Your task to perform on an android device: Empty the shopping cart on bestbuy.com. Image 0: 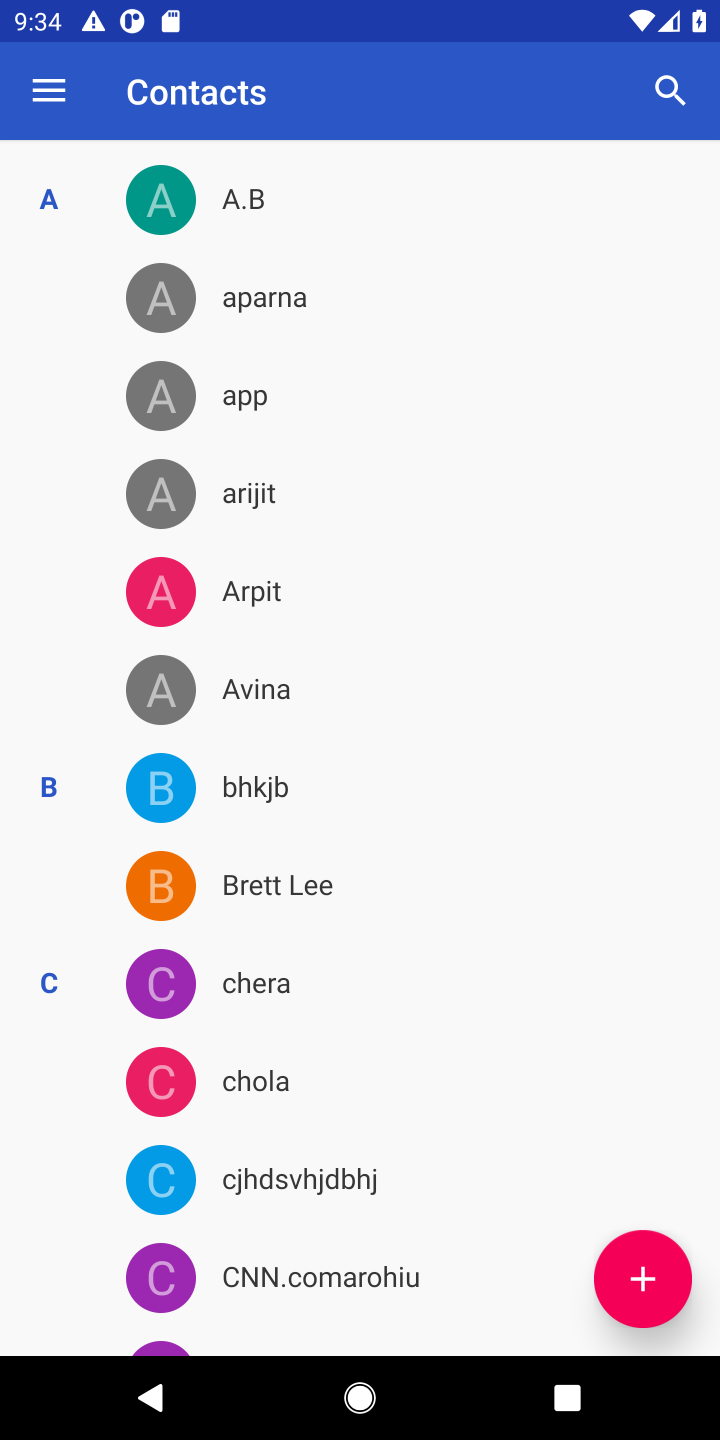
Step 0: press home button
Your task to perform on an android device: Empty the shopping cart on bestbuy.com. Image 1: 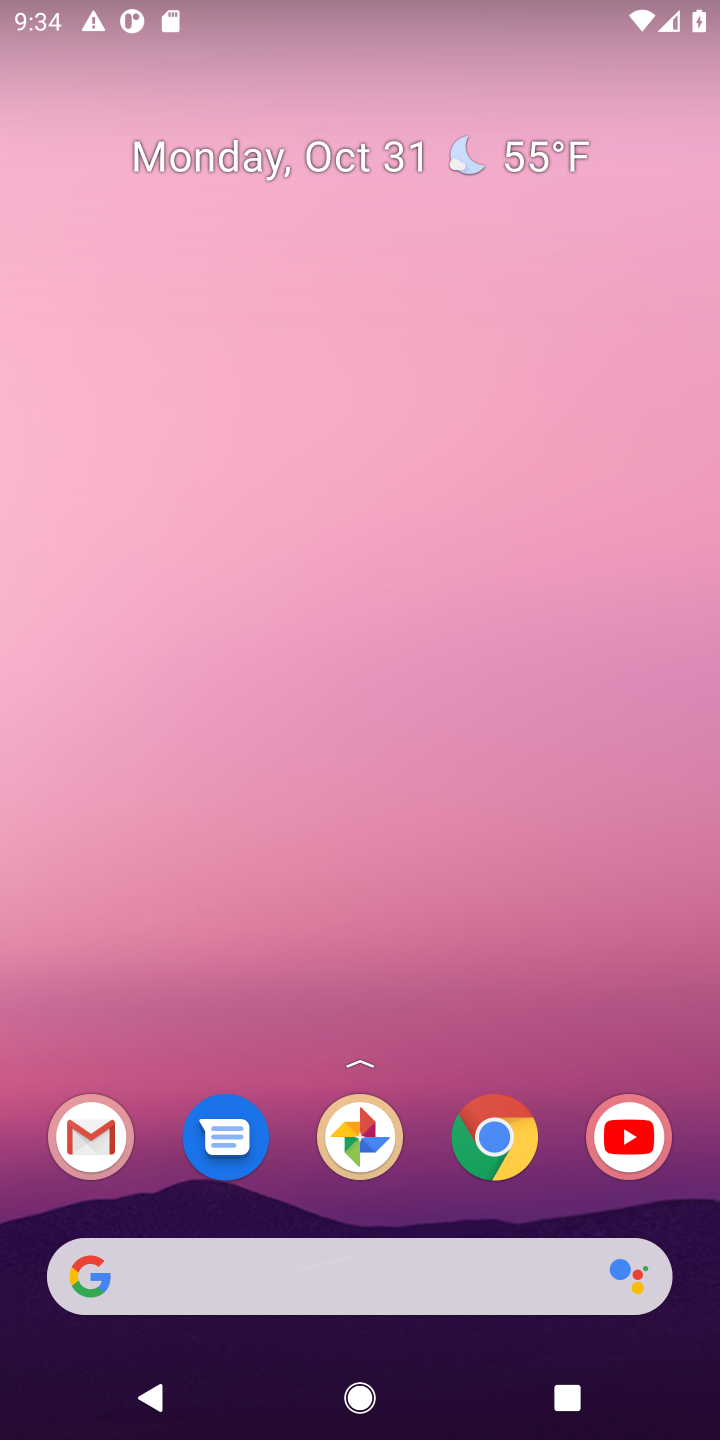
Step 1: click (492, 1142)
Your task to perform on an android device: Empty the shopping cart on bestbuy.com. Image 2: 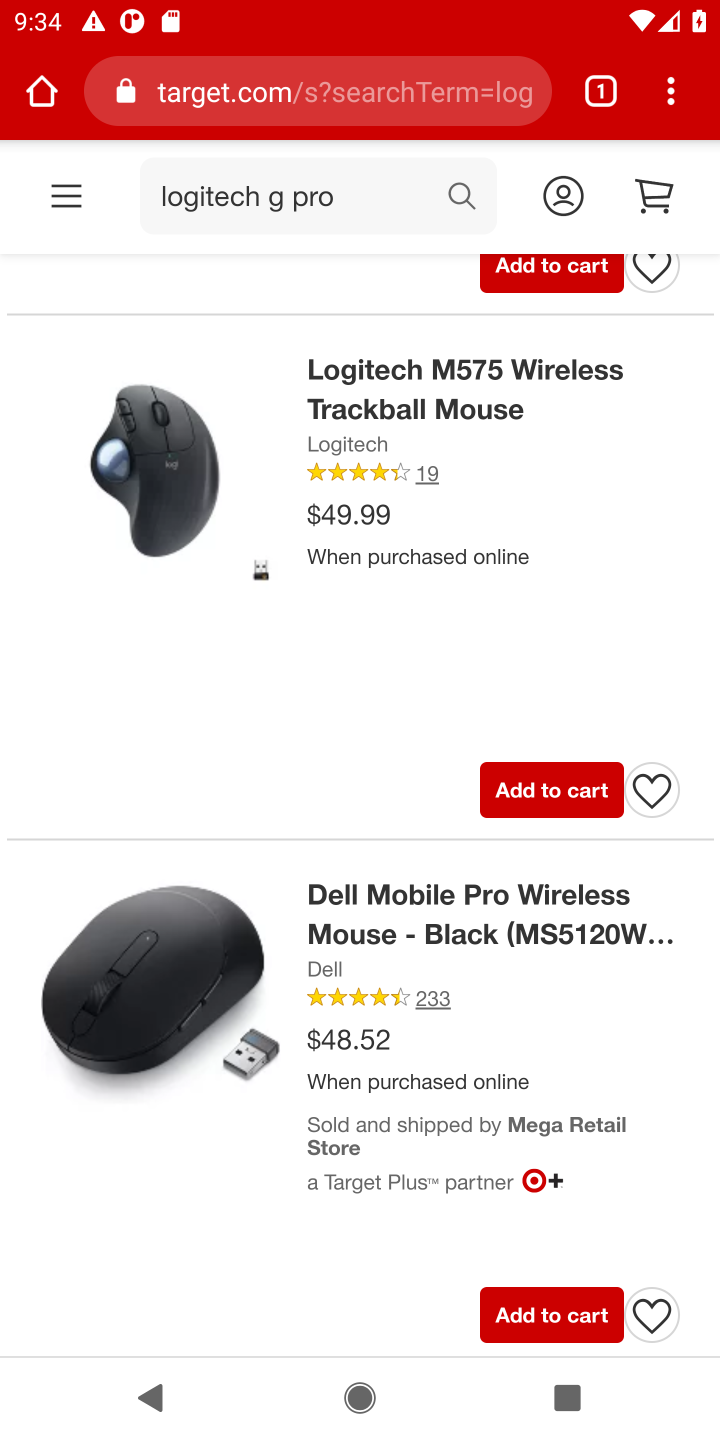
Step 2: click (420, 85)
Your task to perform on an android device: Empty the shopping cart on bestbuy.com. Image 3: 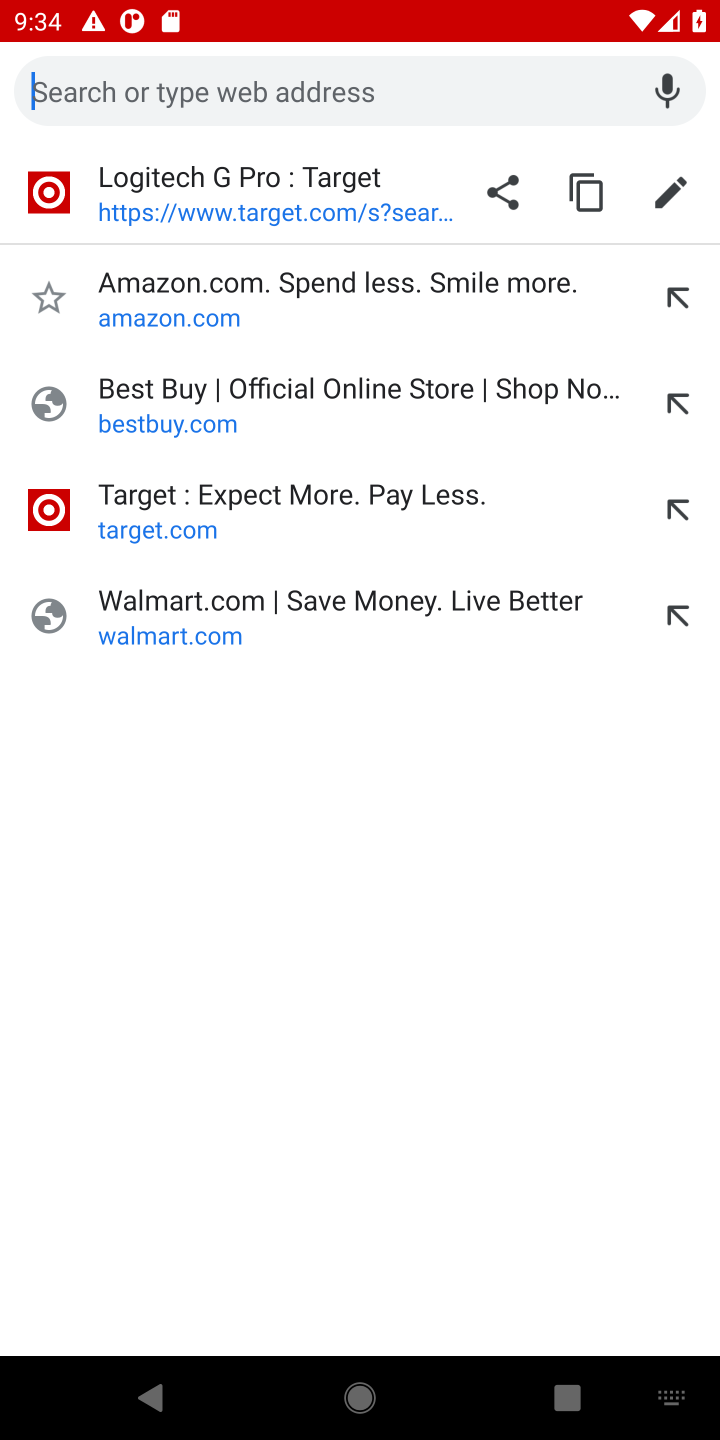
Step 3: type "bestbuy.com."
Your task to perform on an android device: Empty the shopping cart on bestbuy.com. Image 4: 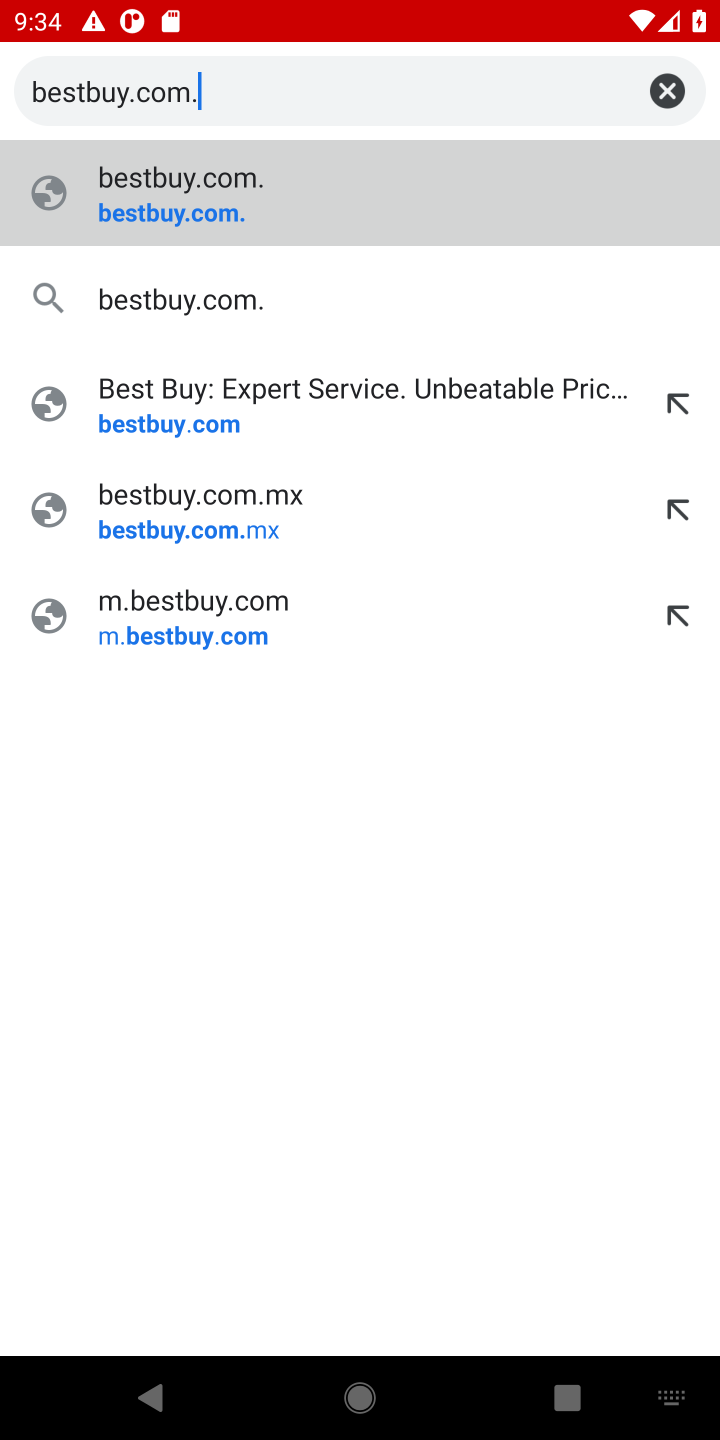
Step 4: click (206, 228)
Your task to perform on an android device: Empty the shopping cart on bestbuy.com. Image 5: 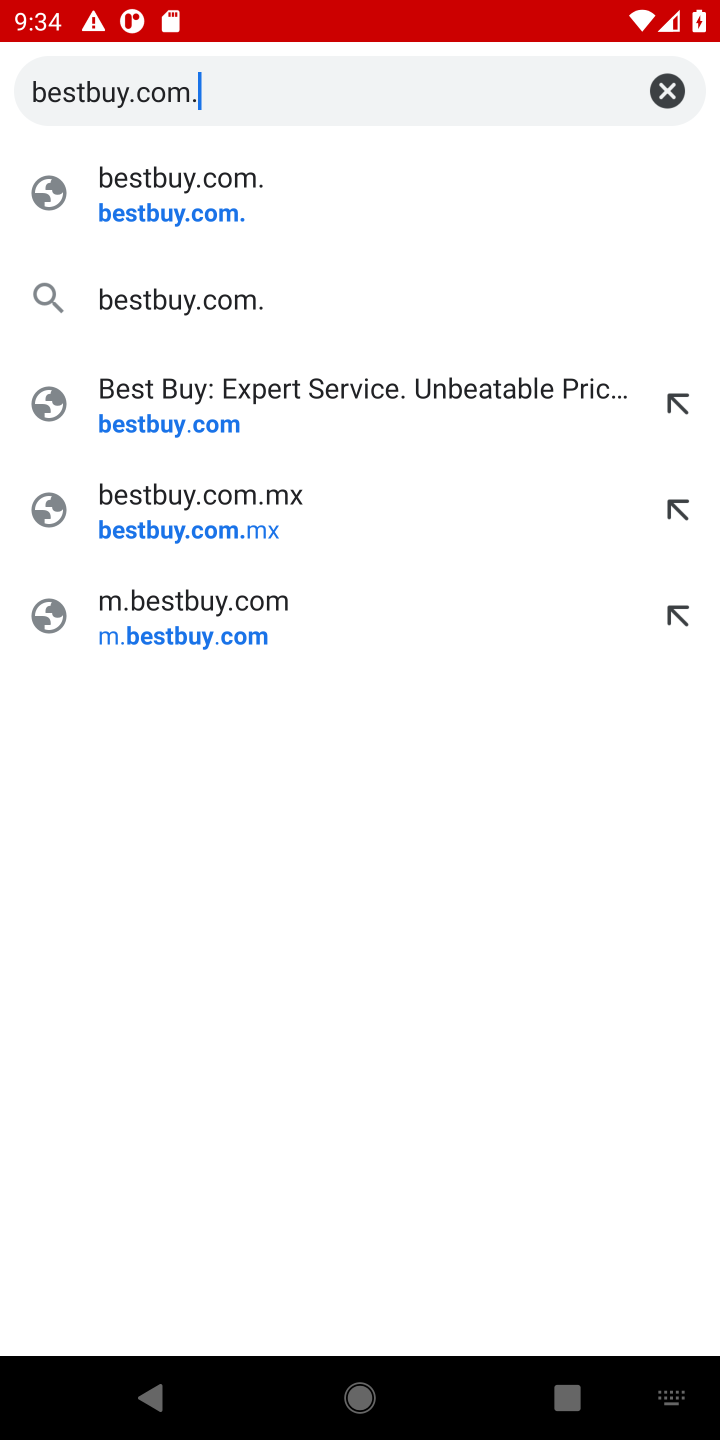
Step 5: click (159, 201)
Your task to perform on an android device: Empty the shopping cart on bestbuy.com. Image 6: 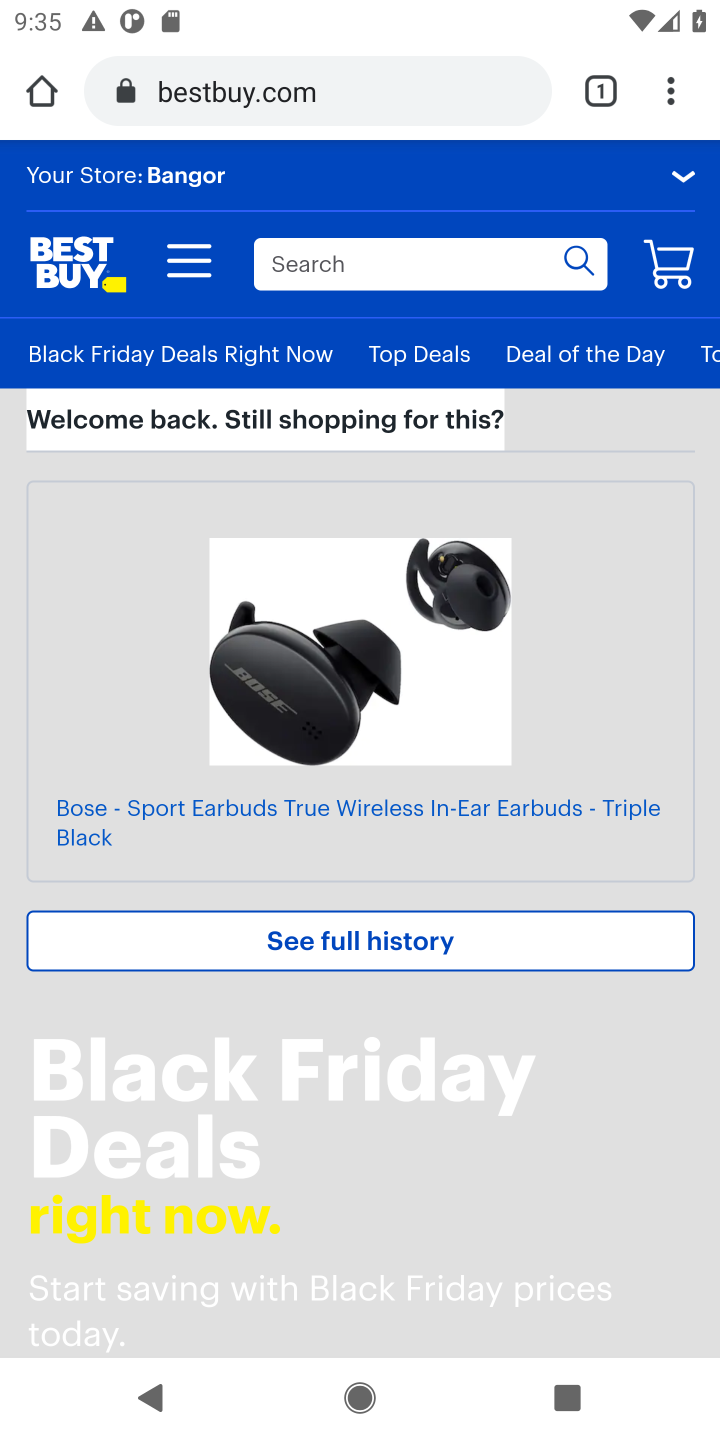
Step 6: click (657, 279)
Your task to perform on an android device: Empty the shopping cart on bestbuy.com. Image 7: 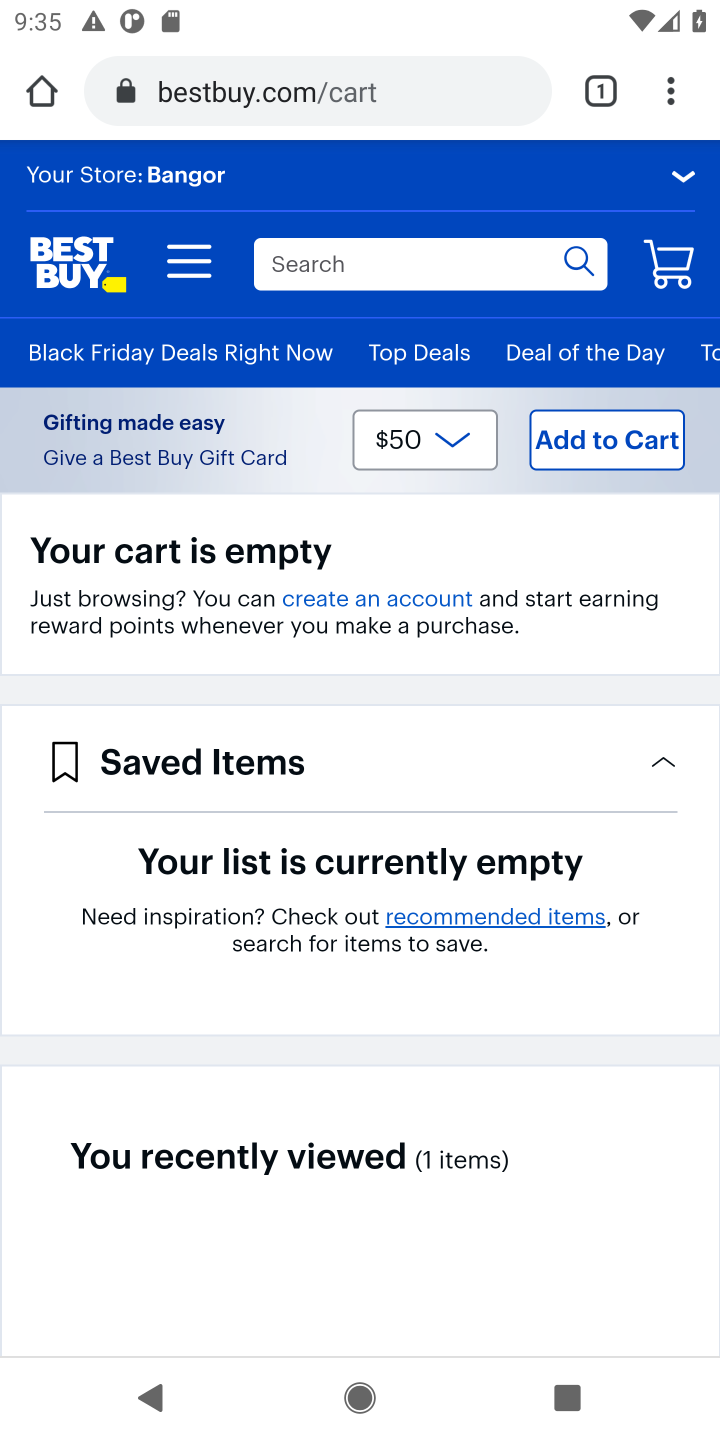
Step 7: task complete